Your task to perform on an android device: Search for sushi restaurants on Maps Image 0: 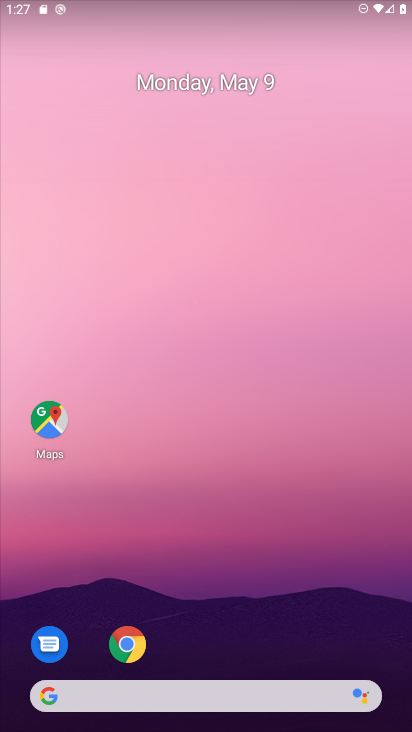
Step 0: drag from (277, 590) to (210, 187)
Your task to perform on an android device: Search for sushi restaurants on Maps Image 1: 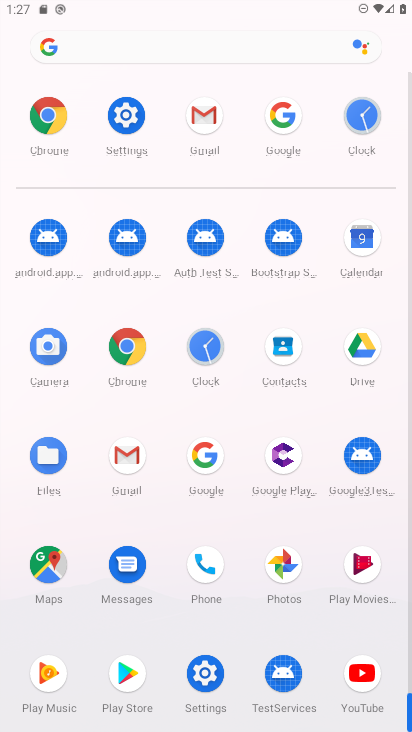
Step 1: click (43, 583)
Your task to perform on an android device: Search for sushi restaurants on Maps Image 2: 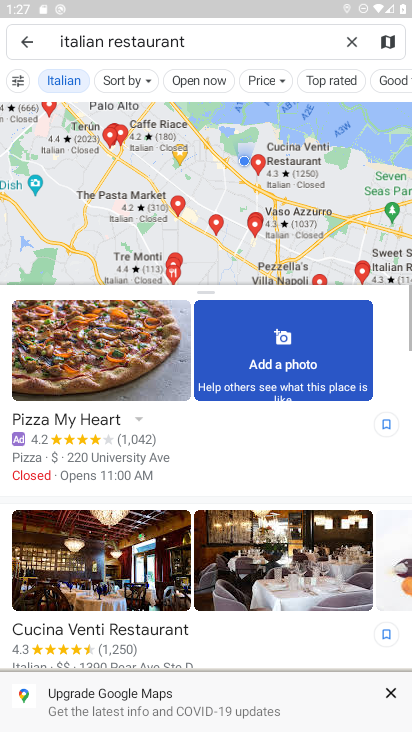
Step 2: click (356, 45)
Your task to perform on an android device: Search for sushi restaurants on Maps Image 3: 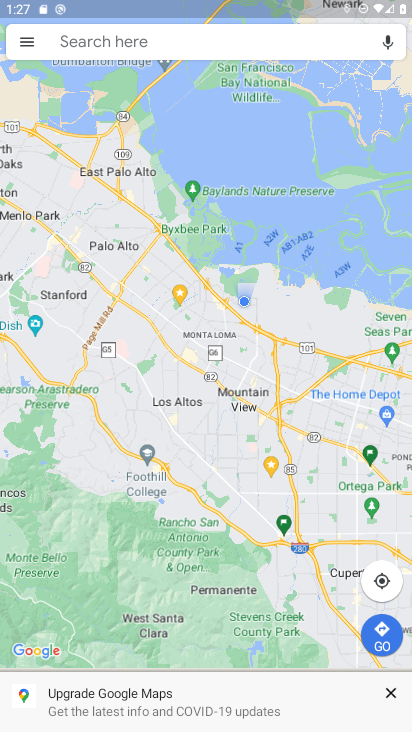
Step 3: click (175, 58)
Your task to perform on an android device: Search for sushi restaurants on Maps Image 4: 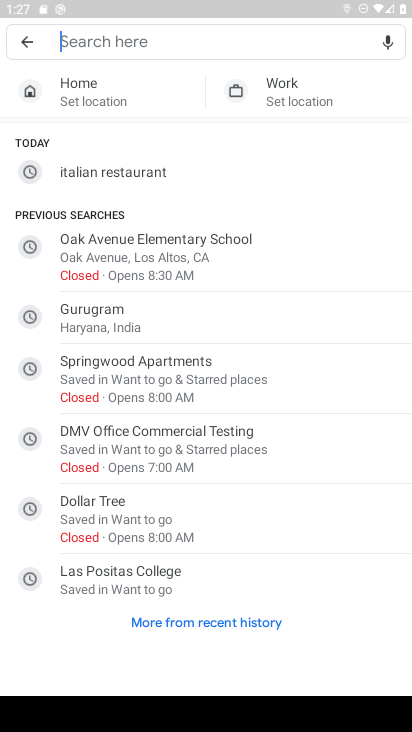
Step 4: click (128, 46)
Your task to perform on an android device: Search for sushi restaurants on Maps Image 5: 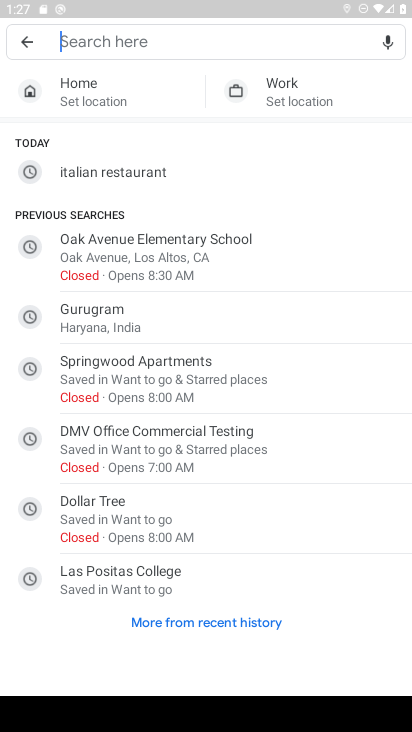
Step 5: type "sushi restaurants"
Your task to perform on an android device: Search for sushi restaurants on Maps Image 6: 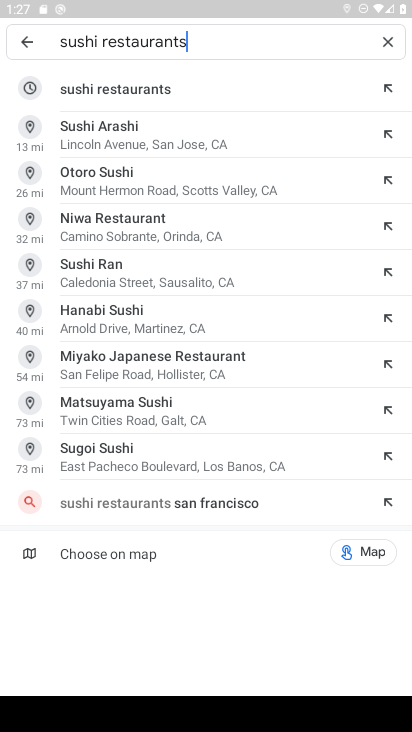
Step 6: click (154, 95)
Your task to perform on an android device: Search for sushi restaurants on Maps Image 7: 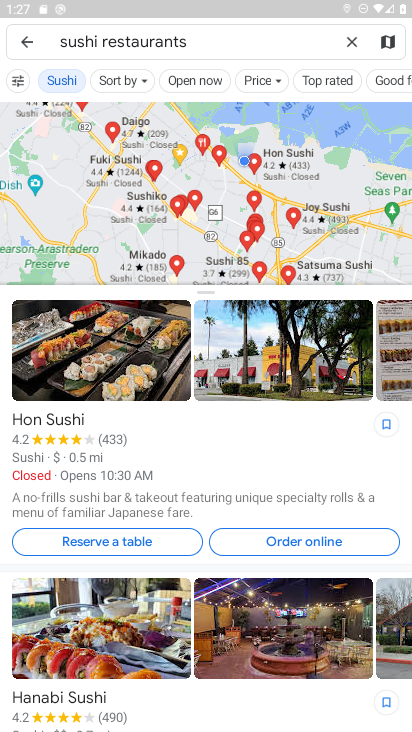
Step 7: task complete